Your task to perform on an android device: Open Amazon Image 0: 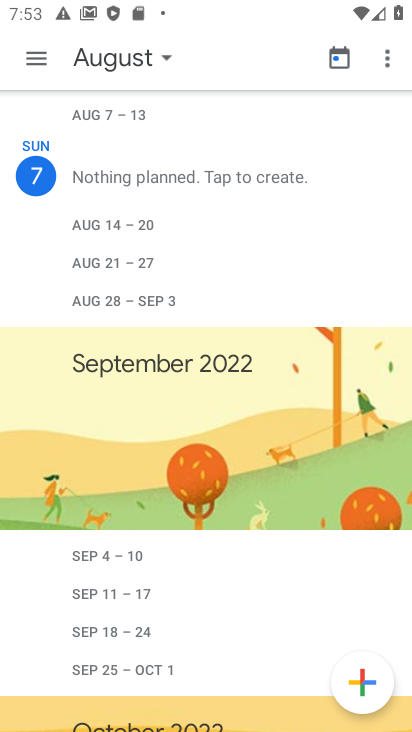
Step 0: press back button
Your task to perform on an android device: Open Amazon Image 1: 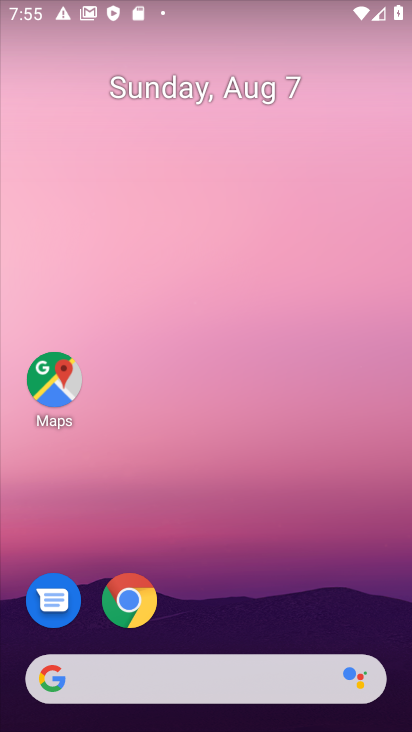
Step 1: drag from (184, 624) to (173, 39)
Your task to perform on an android device: Open Amazon Image 2: 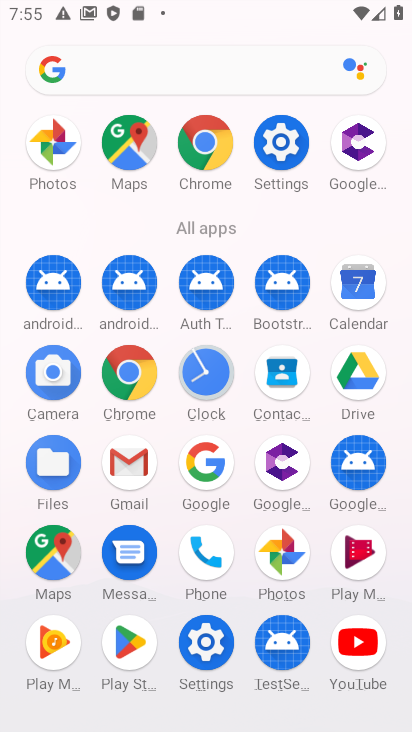
Step 2: click (194, 146)
Your task to perform on an android device: Open Amazon Image 3: 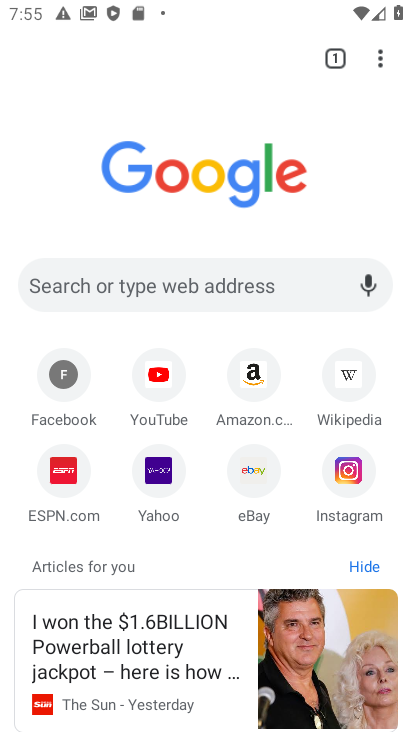
Step 3: click (253, 379)
Your task to perform on an android device: Open Amazon Image 4: 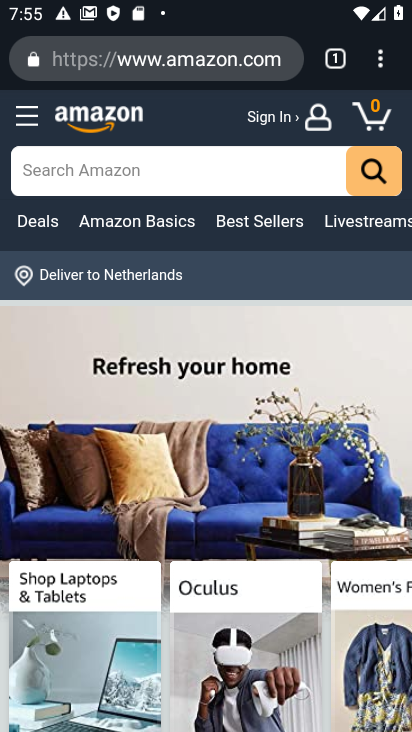
Step 4: task complete